Your task to perform on an android device: uninstall "Google Photos" Image 0: 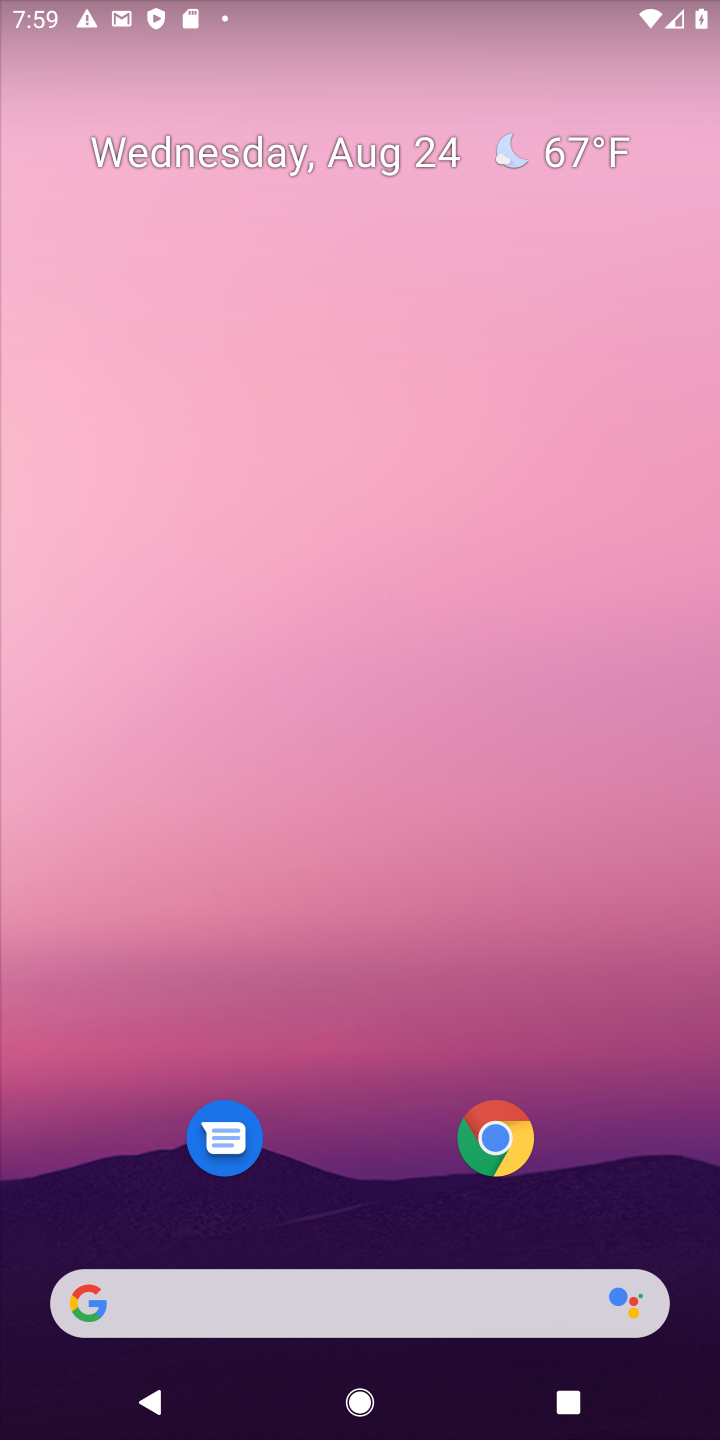
Step 0: drag from (373, 1225) to (200, 230)
Your task to perform on an android device: uninstall "Google Photos" Image 1: 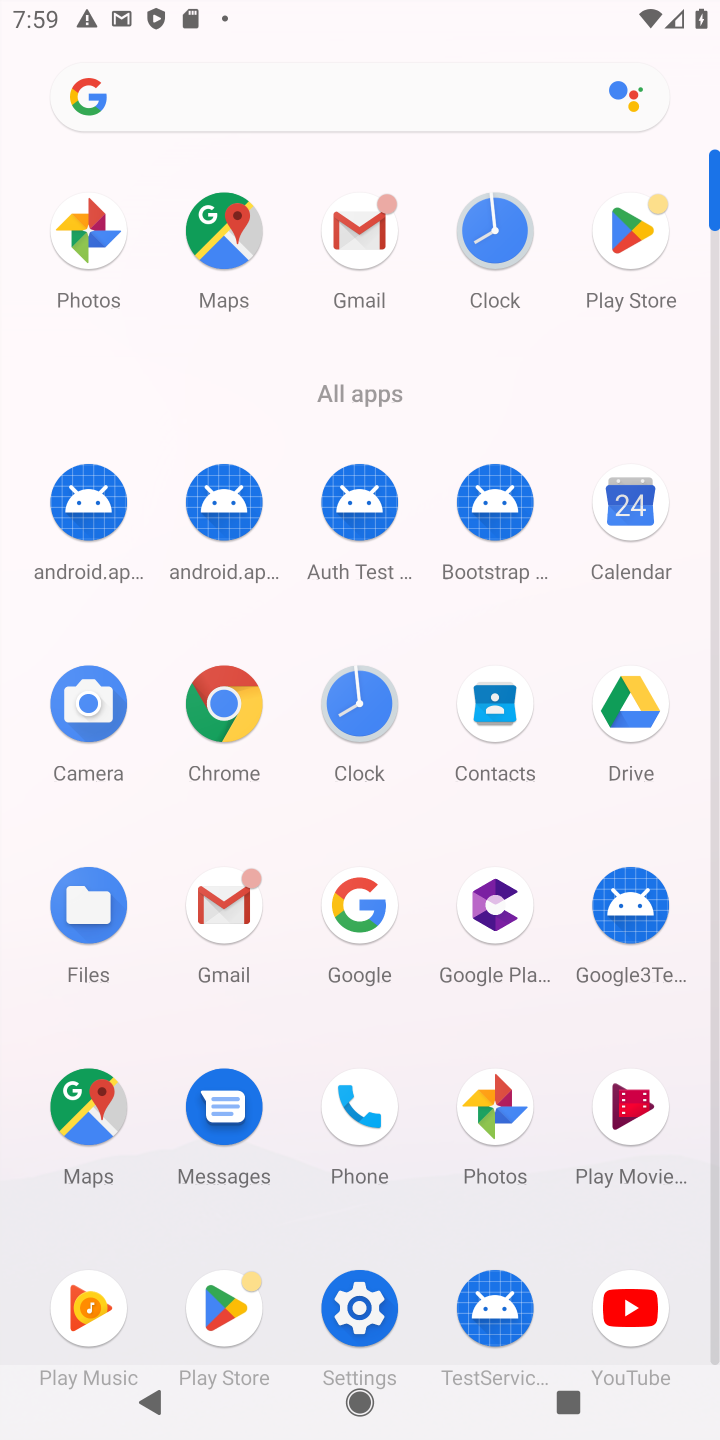
Step 1: click (502, 1139)
Your task to perform on an android device: uninstall "Google Photos" Image 2: 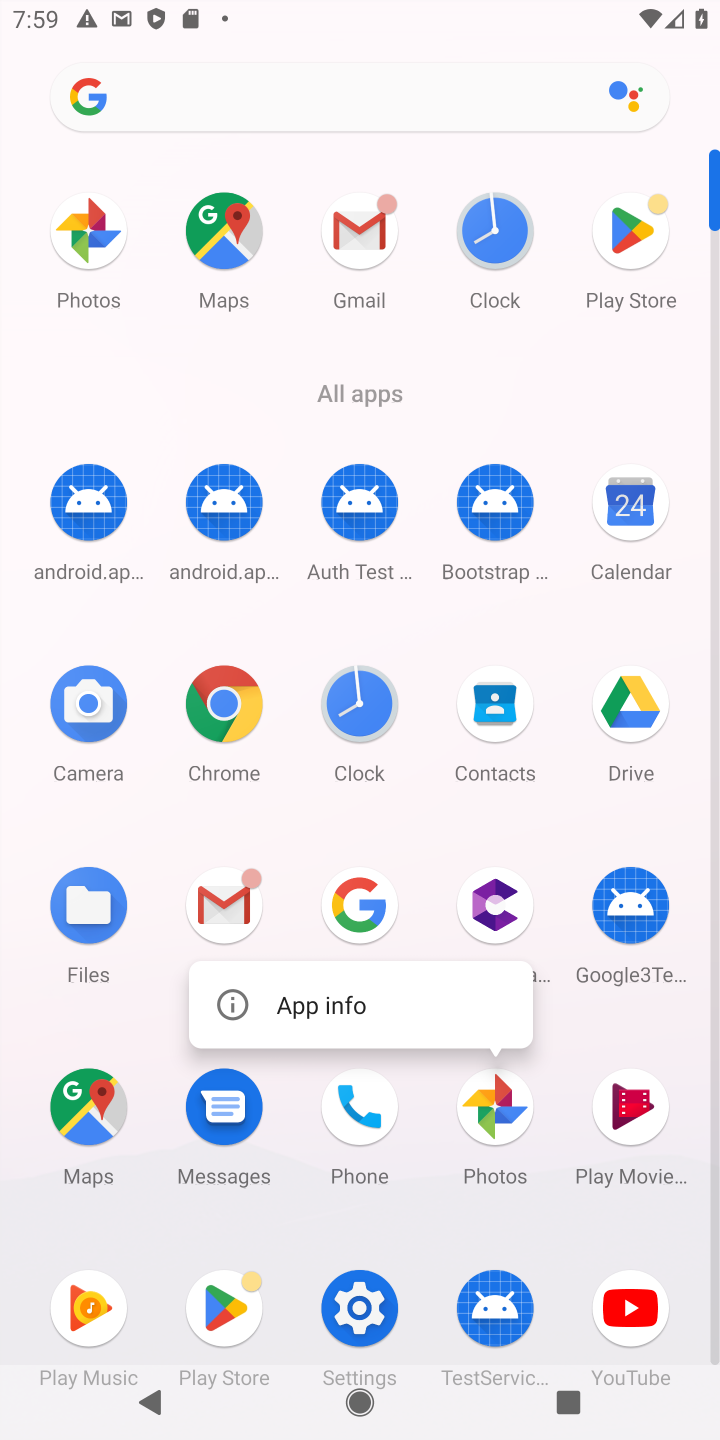
Step 2: click (217, 1018)
Your task to perform on an android device: uninstall "Google Photos" Image 3: 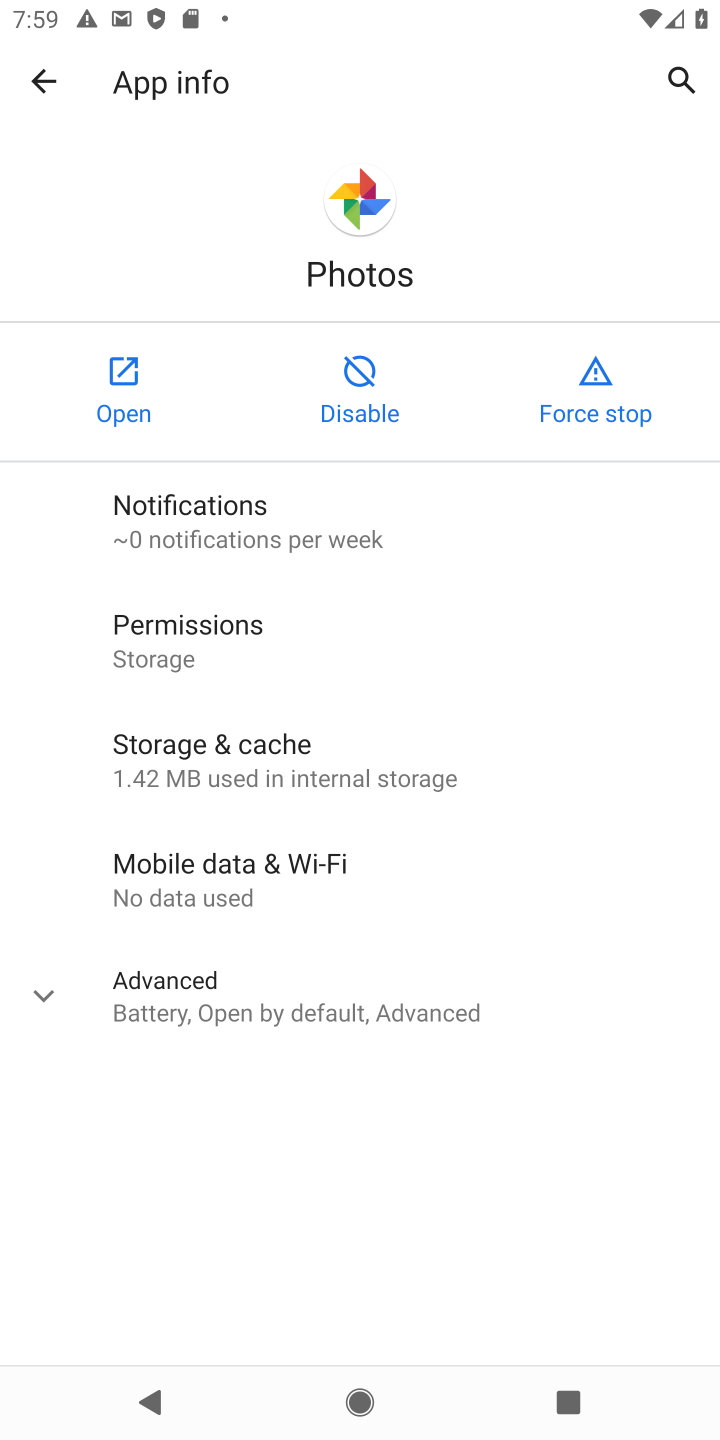
Step 3: task complete